Your task to perform on an android device: set an alarm Image 0: 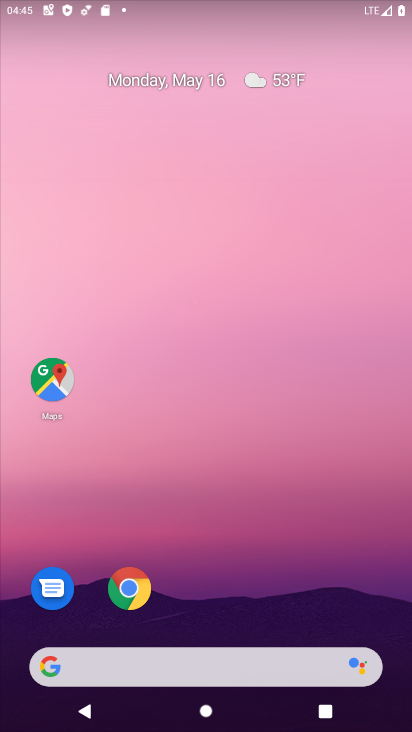
Step 0: drag from (261, 562) to (194, 22)
Your task to perform on an android device: set an alarm Image 1: 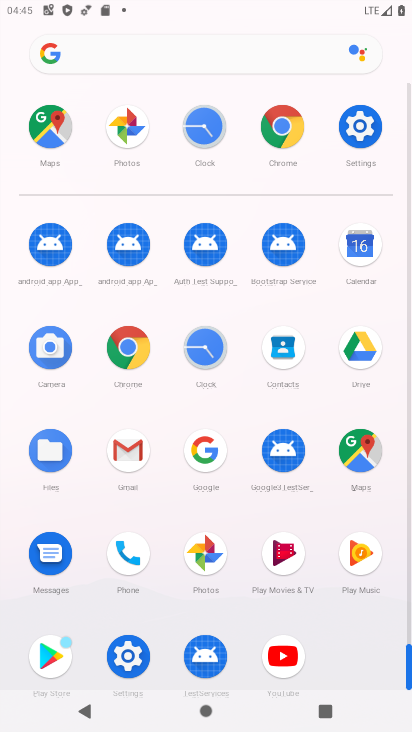
Step 1: click (206, 342)
Your task to perform on an android device: set an alarm Image 2: 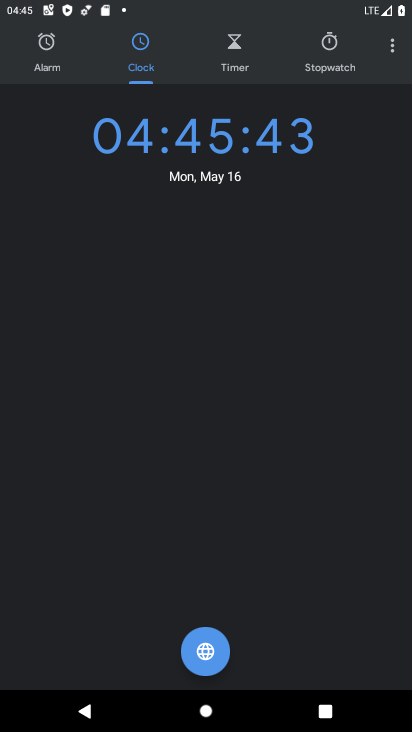
Step 2: click (43, 56)
Your task to perform on an android device: set an alarm Image 3: 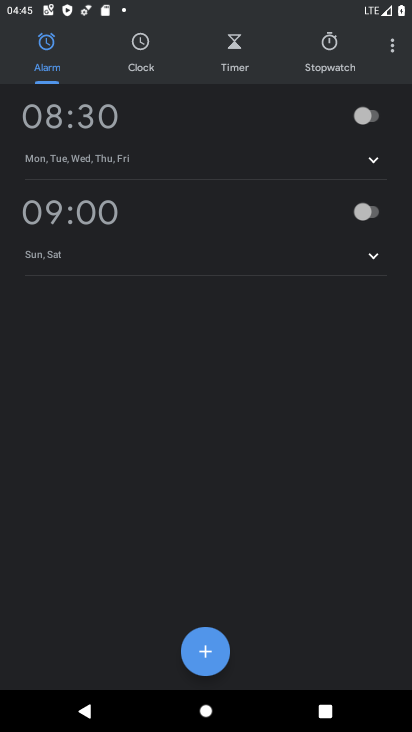
Step 3: click (195, 649)
Your task to perform on an android device: set an alarm Image 4: 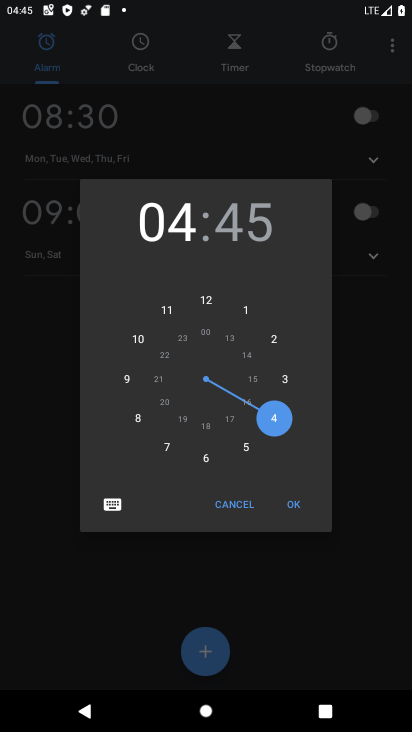
Step 4: click (294, 503)
Your task to perform on an android device: set an alarm Image 5: 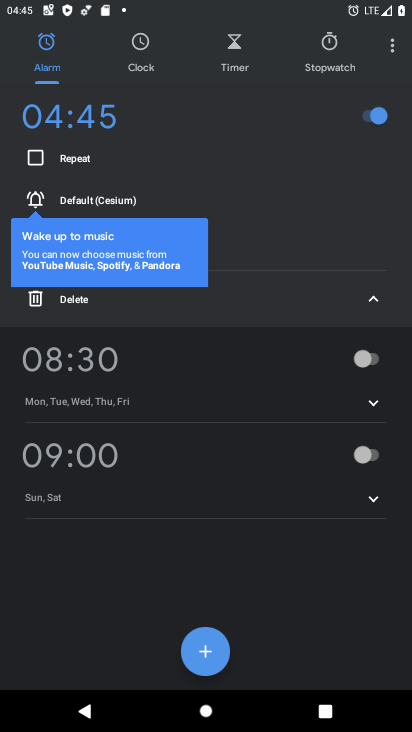
Step 5: task complete